Your task to perform on an android device: turn on wifi Image 0: 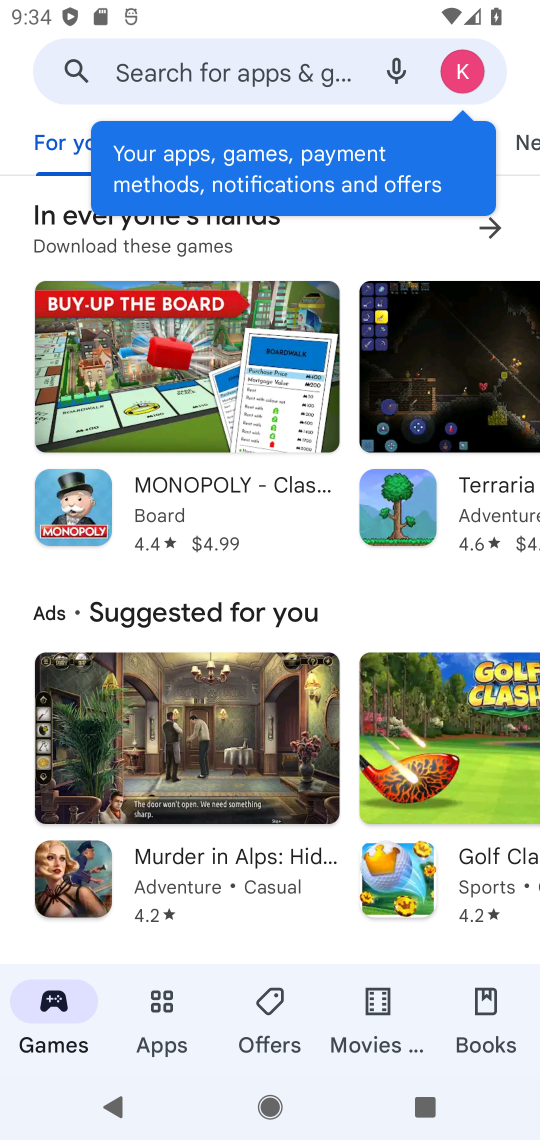
Step 0: press home button
Your task to perform on an android device: turn on wifi Image 1: 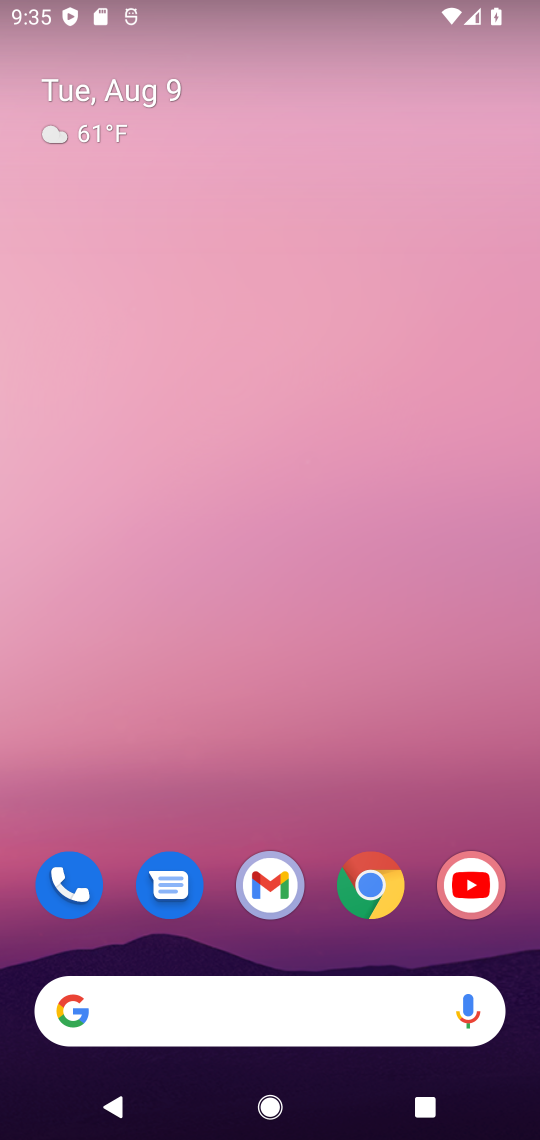
Step 1: drag from (319, 932) to (352, 193)
Your task to perform on an android device: turn on wifi Image 2: 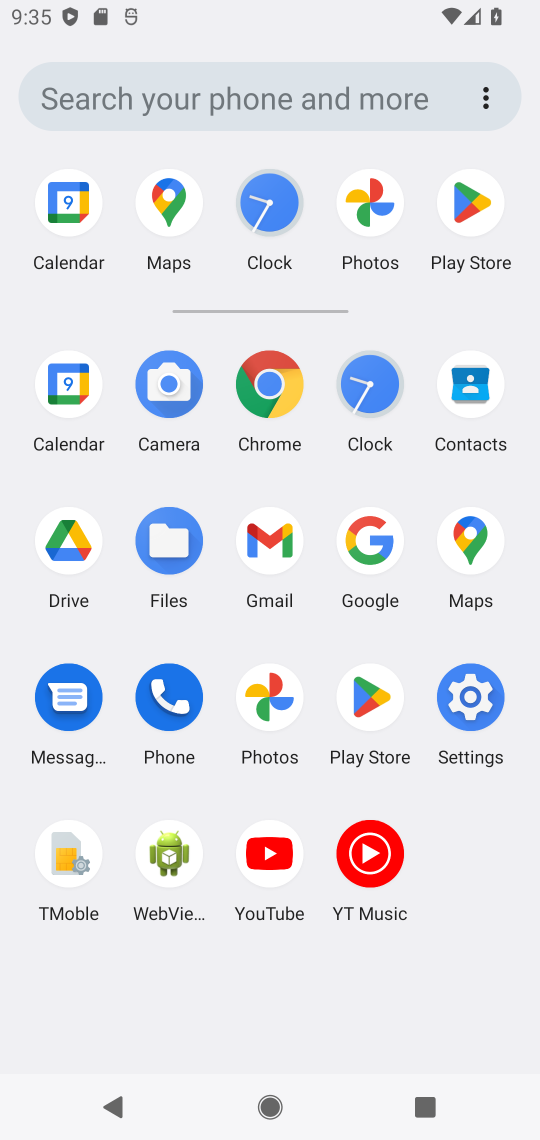
Step 2: click (472, 680)
Your task to perform on an android device: turn on wifi Image 3: 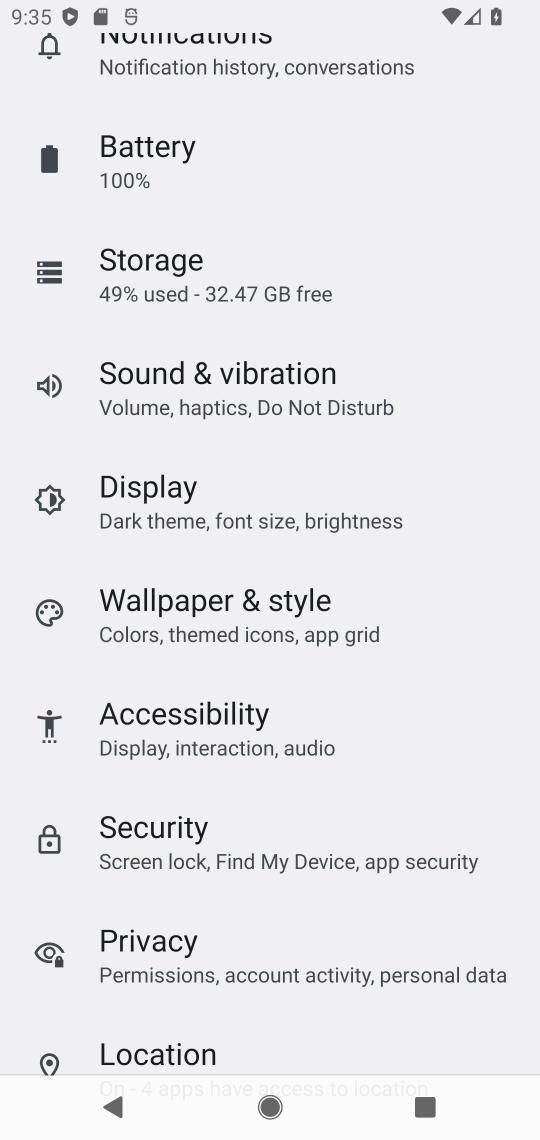
Step 3: drag from (190, 132) to (221, 810)
Your task to perform on an android device: turn on wifi Image 4: 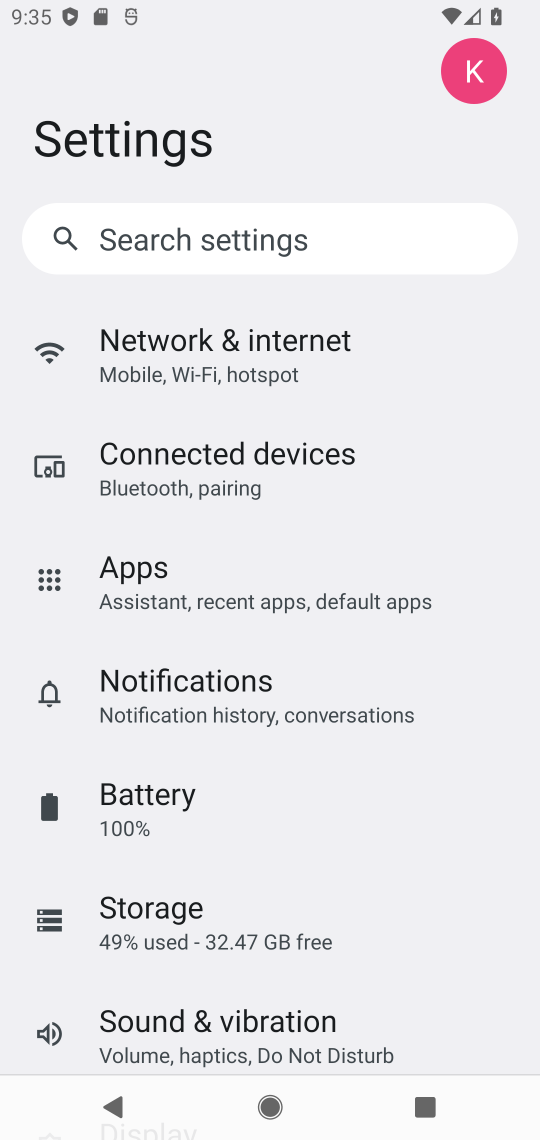
Step 4: click (220, 356)
Your task to perform on an android device: turn on wifi Image 5: 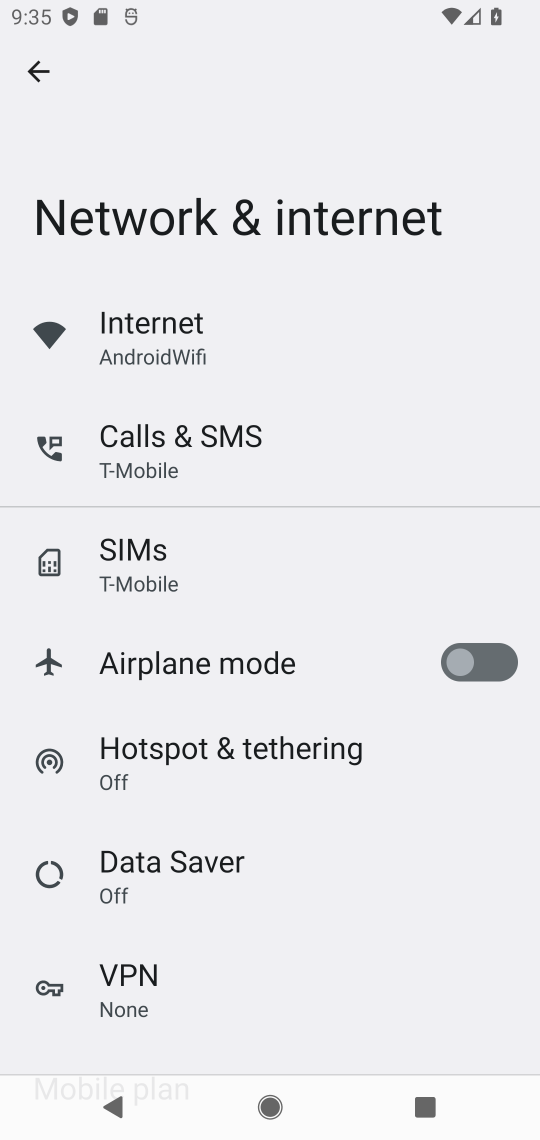
Step 5: click (222, 339)
Your task to perform on an android device: turn on wifi Image 6: 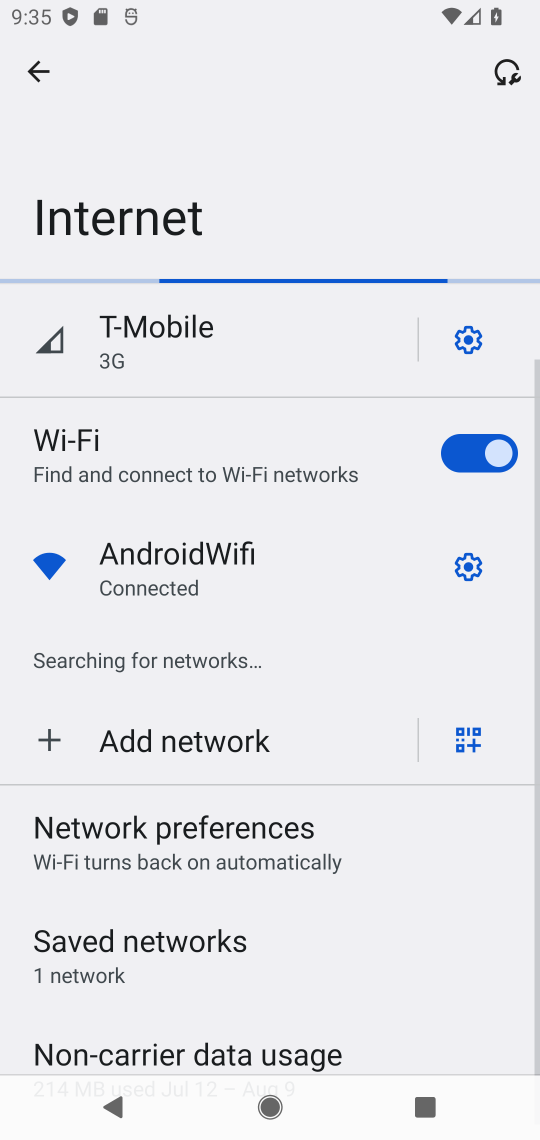
Step 6: task complete